Your task to perform on an android device: Add razer blade to the cart on ebay Image 0: 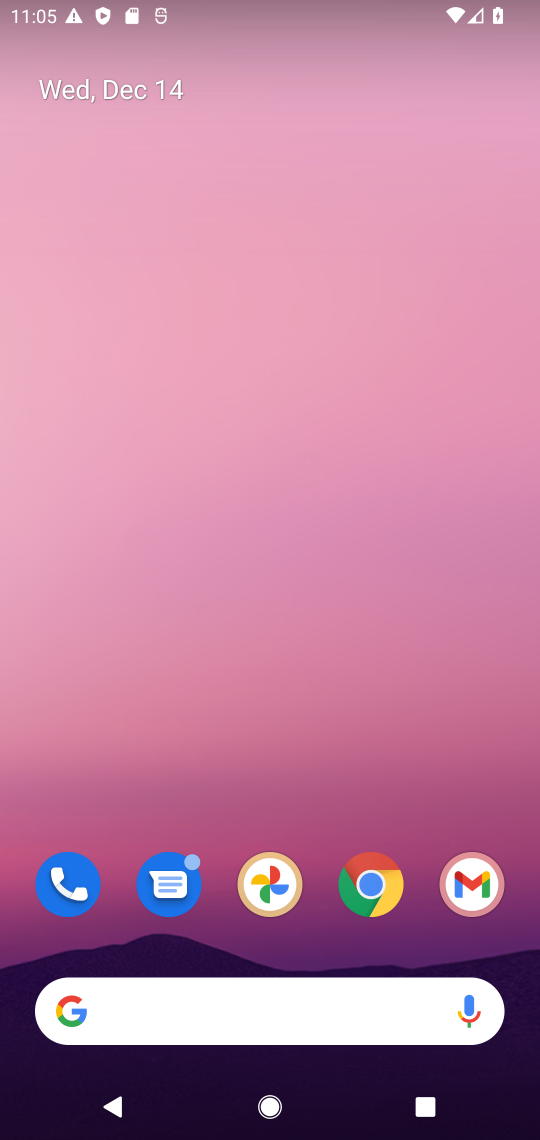
Step 0: click (376, 898)
Your task to perform on an android device: Add razer blade to the cart on ebay Image 1: 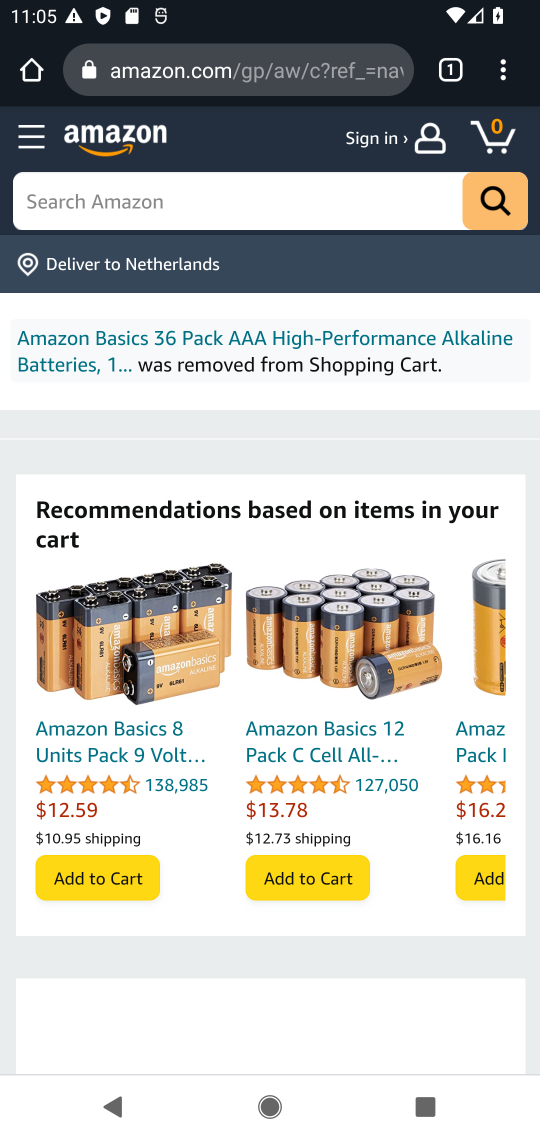
Step 1: click (203, 90)
Your task to perform on an android device: Add razer blade to the cart on ebay Image 2: 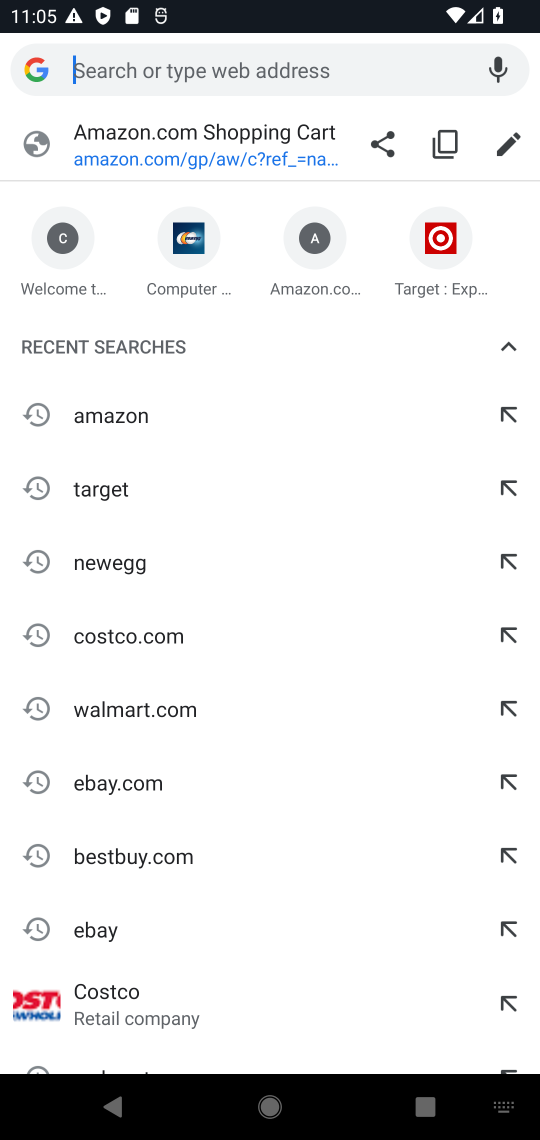
Step 2: type "ebay"
Your task to perform on an android device: Add razer blade to the cart on ebay Image 3: 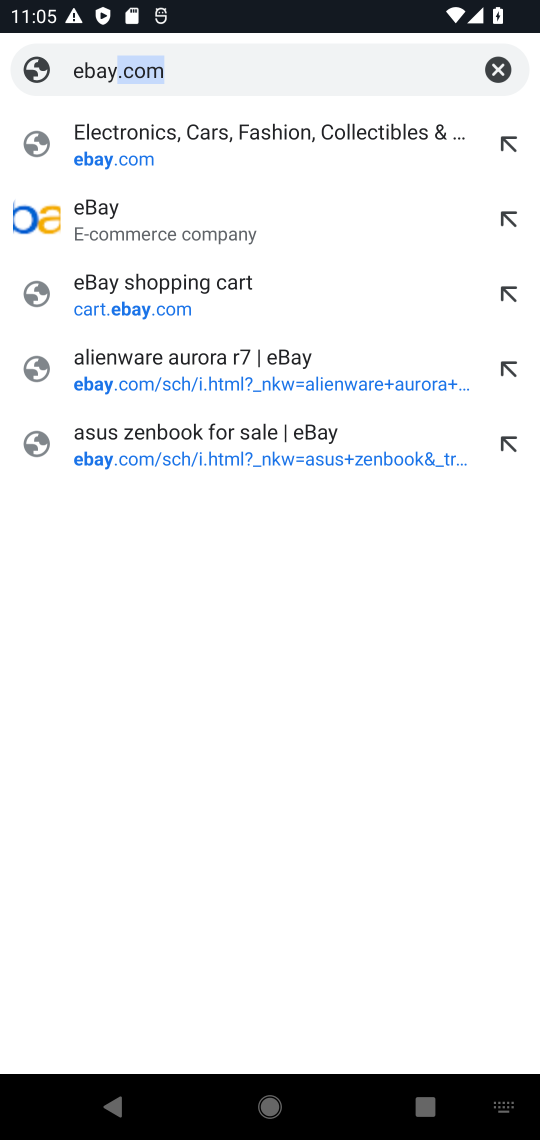
Step 3: click (154, 151)
Your task to perform on an android device: Add razer blade to the cart on ebay Image 4: 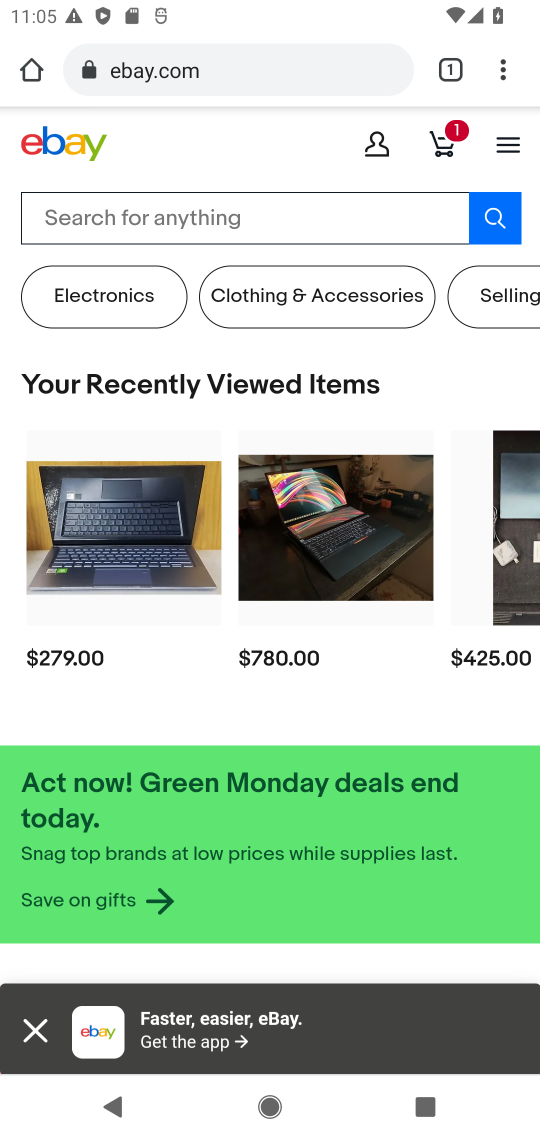
Step 4: click (326, 220)
Your task to perform on an android device: Add razer blade to the cart on ebay Image 5: 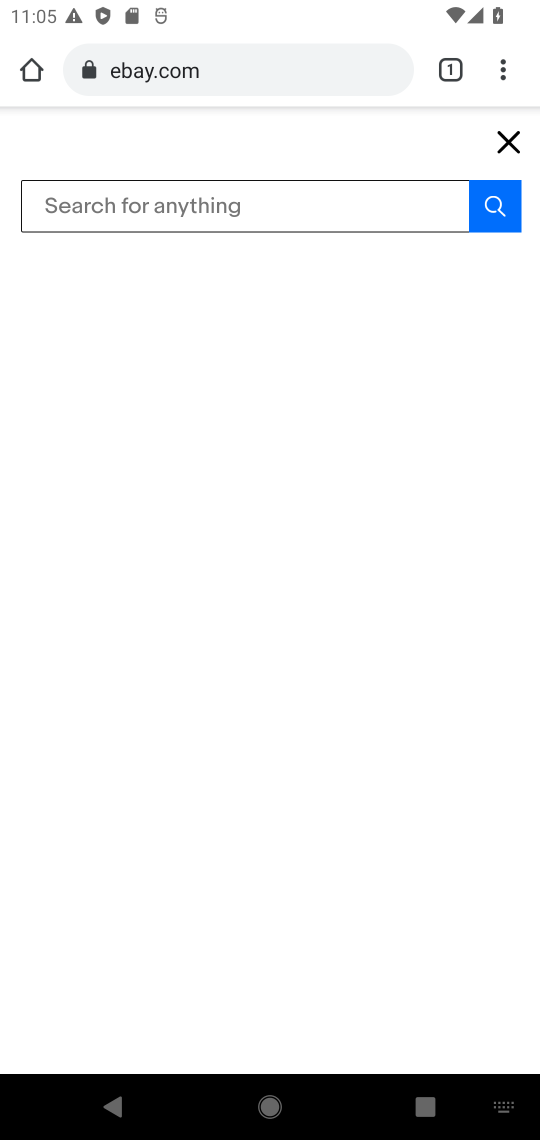
Step 5: type "razer blade"
Your task to perform on an android device: Add razer blade to the cart on ebay Image 6: 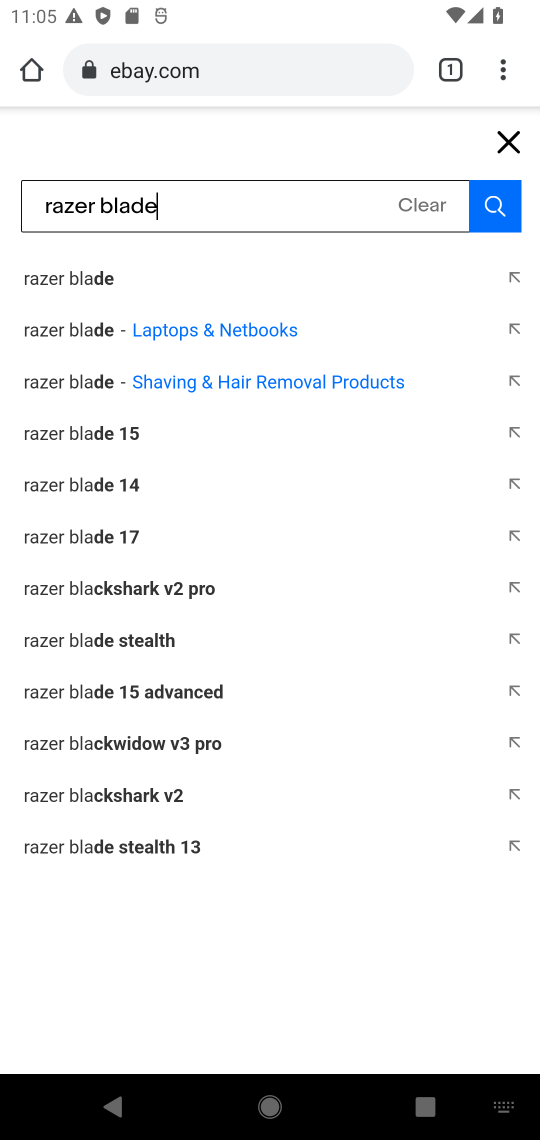
Step 6: click (497, 211)
Your task to perform on an android device: Add razer blade to the cart on ebay Image 7: 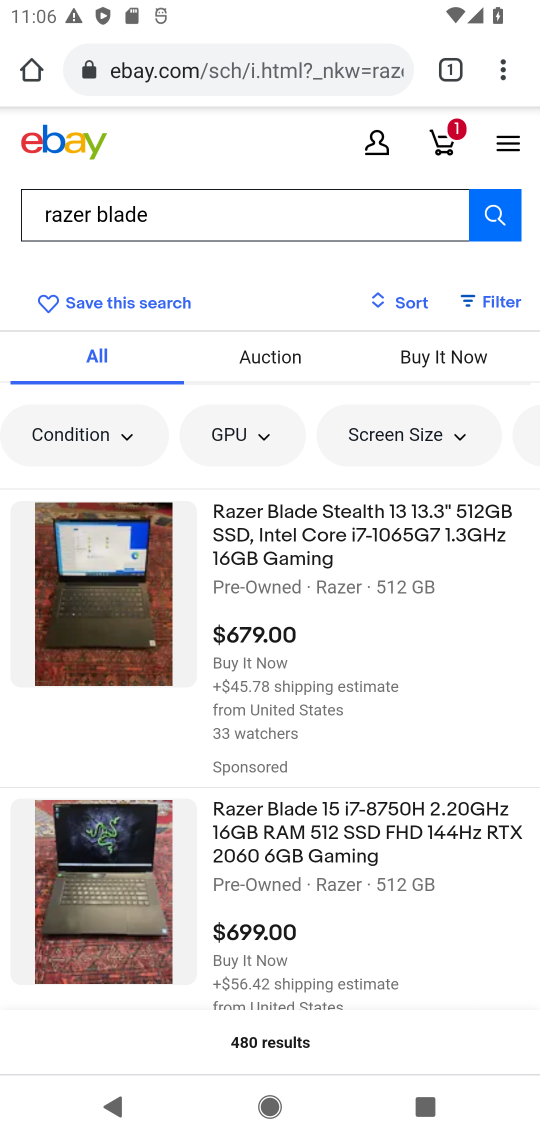
Step 7: click (153, 597)
Your task to perform on an android device: Add razer blade to the cart on ebay Image 8: 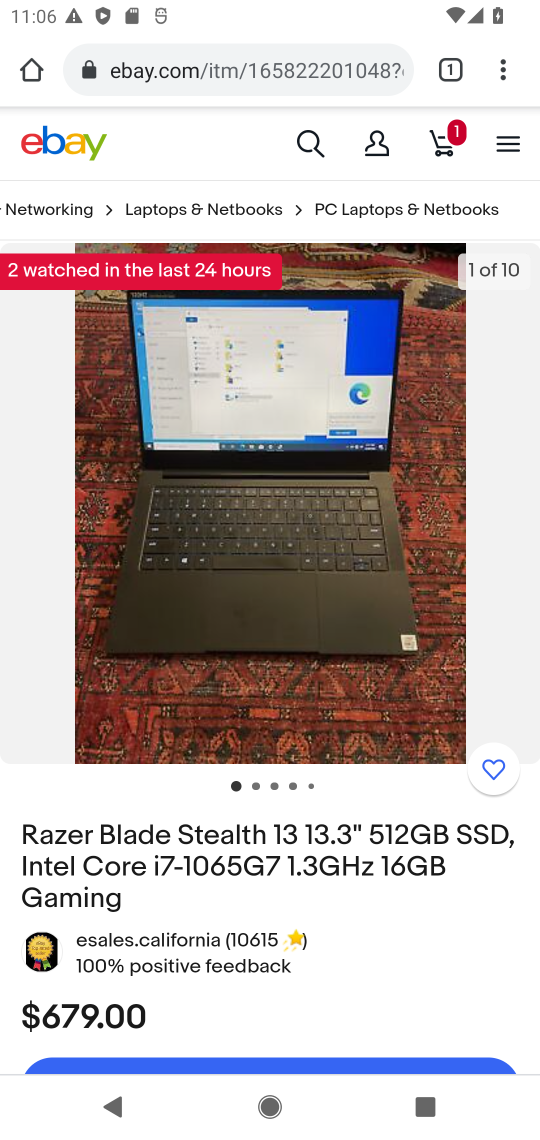
Step 8: drag from (346, 890) to (382, 387)
Your task to perform on an android device: Add razer blade to the cart on ebay Image 9: 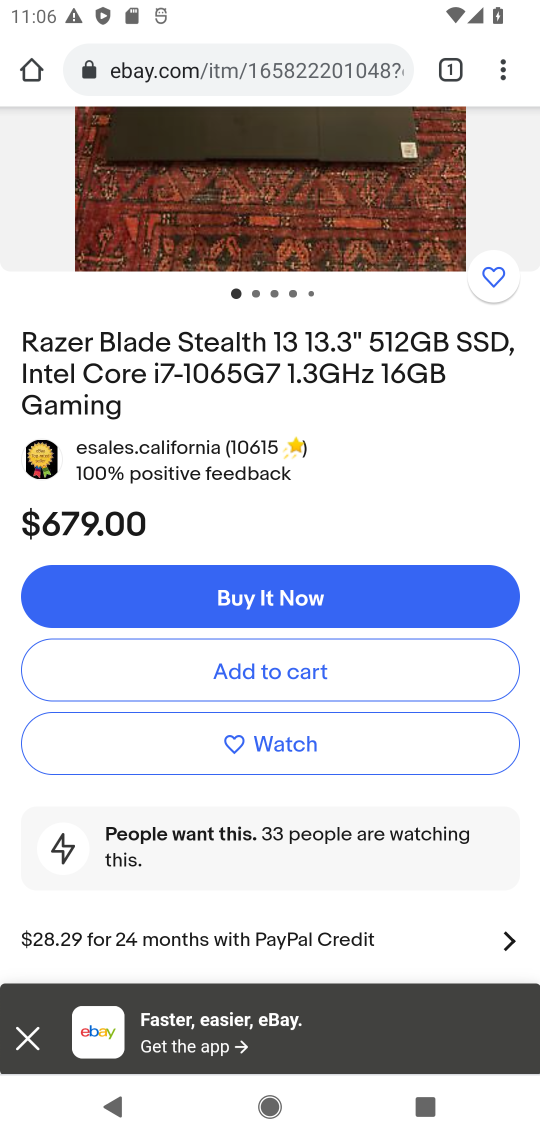
Step 9: click (258, 676)
Your task to perform on an android device: Add razer blade to the cart on ebay Image 10: 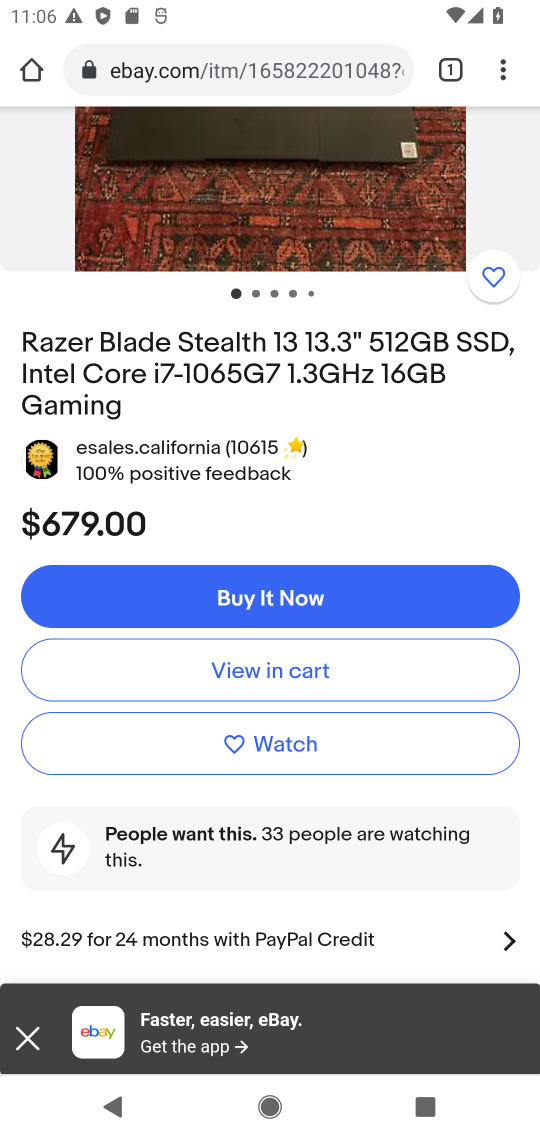
Step 10: click (228, 682)
Your task to perform on an android device: Add razer blade to the cart on ebay Image 11: 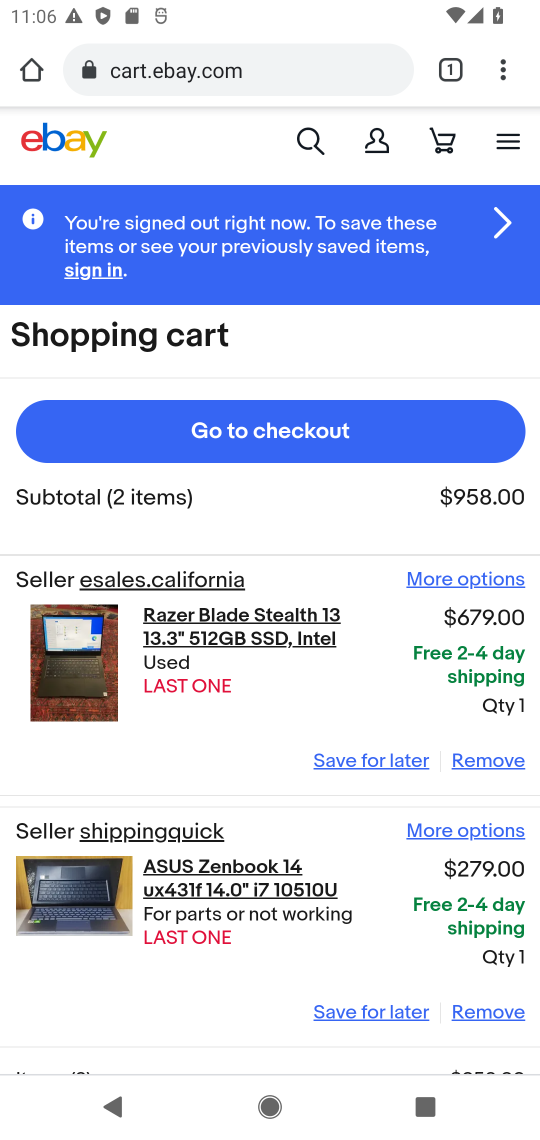
Step 11: task complete